Your task to perform on an android device: Go to Reddit.com Image 0: 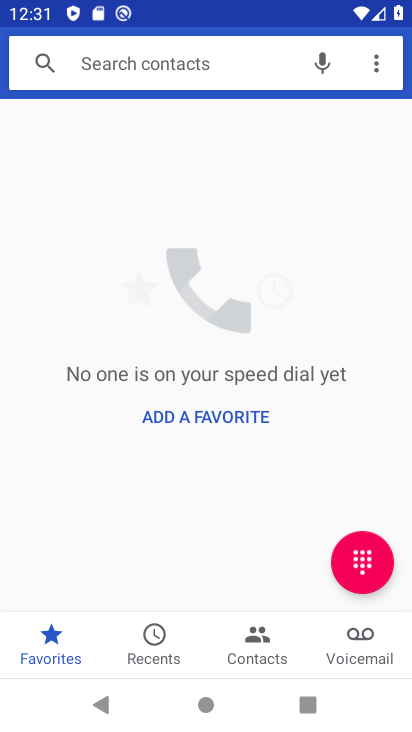
Step 0: press home button
Your task to perform on an android device: Go to Reddit.com Image 1: 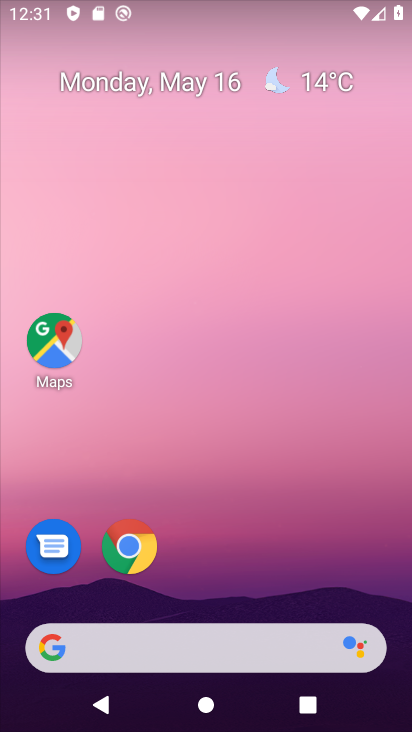
Step 1: drag from (246, 669) to (203, 167)
Your task to perform on an android device: Go to Reddit.com Image 2: 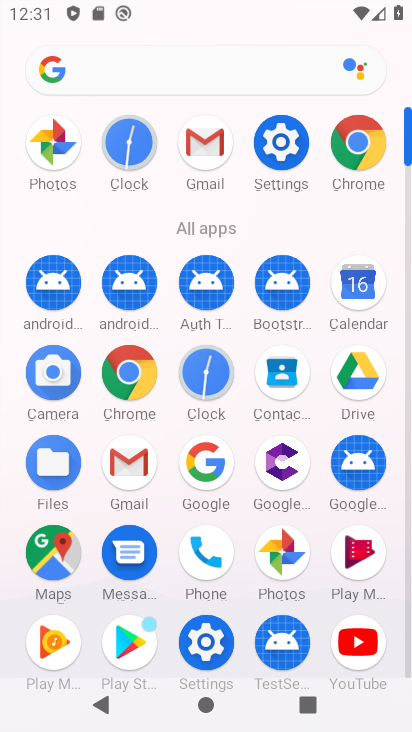
Step 2: click (351, 148)
Your task to perform on an android device: Go to Reddit.com Image 3: 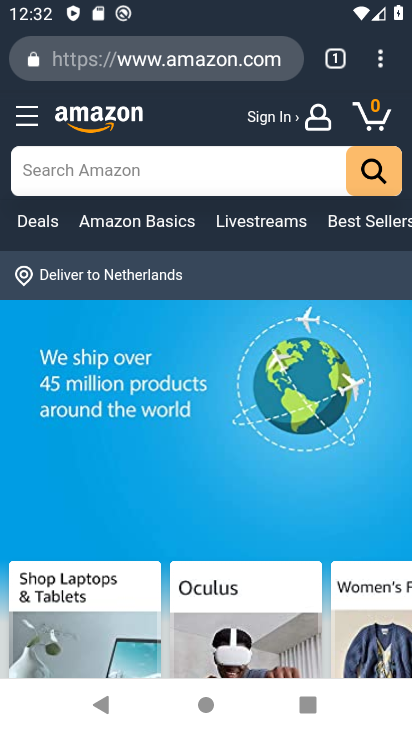
Step 3: click (211, 63)
Your task to perform on an android device: Go to Reddit.com Image 4: 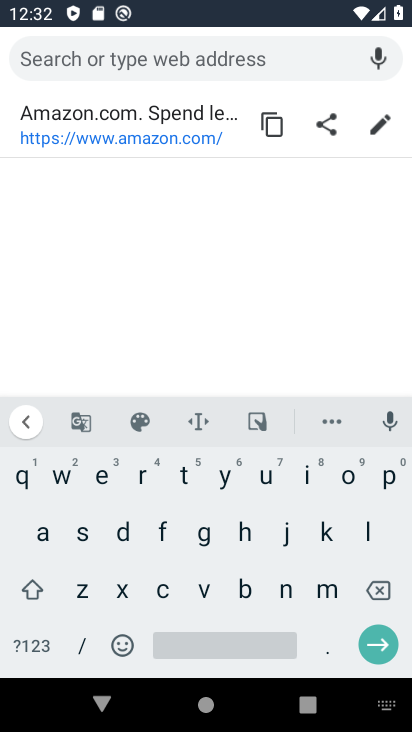
Step 4: click (138, 471)
Your task to perform on an android device: Go to Reddit.com Image 5: 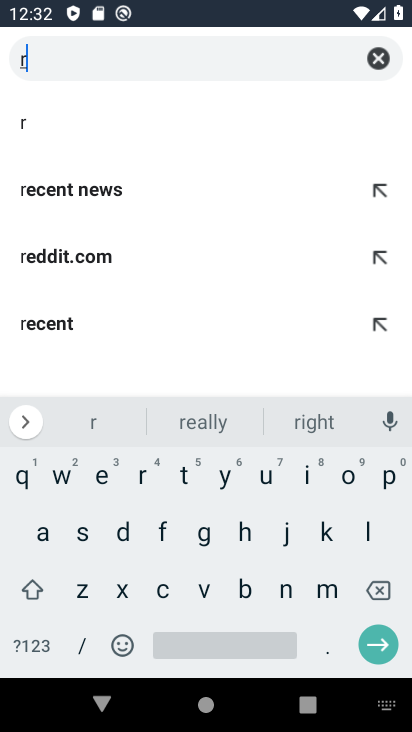
Step 5: click (103, 479)
Your task to perform on an android device: Go to Reddit.com Image 6: 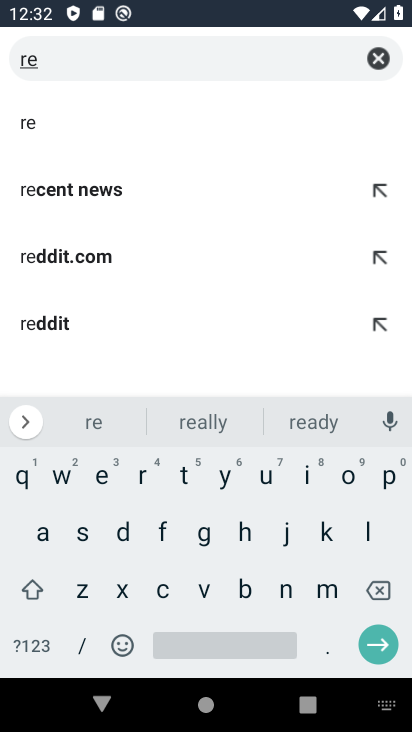
Step 6: click (67, 248)
Your task to perform on an android device: Go to Reddit.com Image 7: 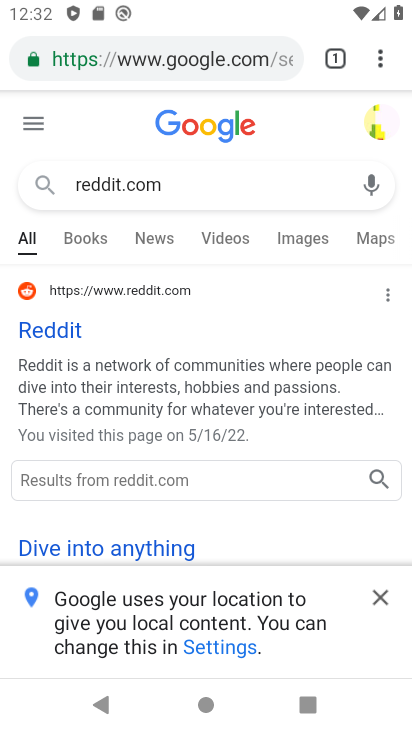
Step 7: click (33, 327)
Your task to perform on an android device: Go to Reddit.com Image 8: 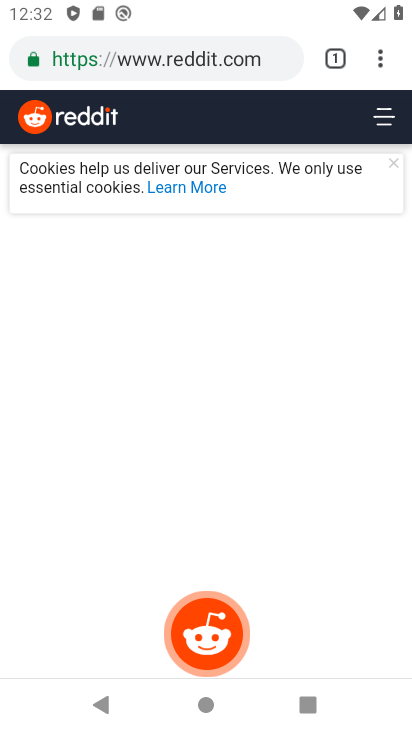
Step 8: task complete